Your task to perform on an android device: turn on priority inbox in the gmail app Image 0: 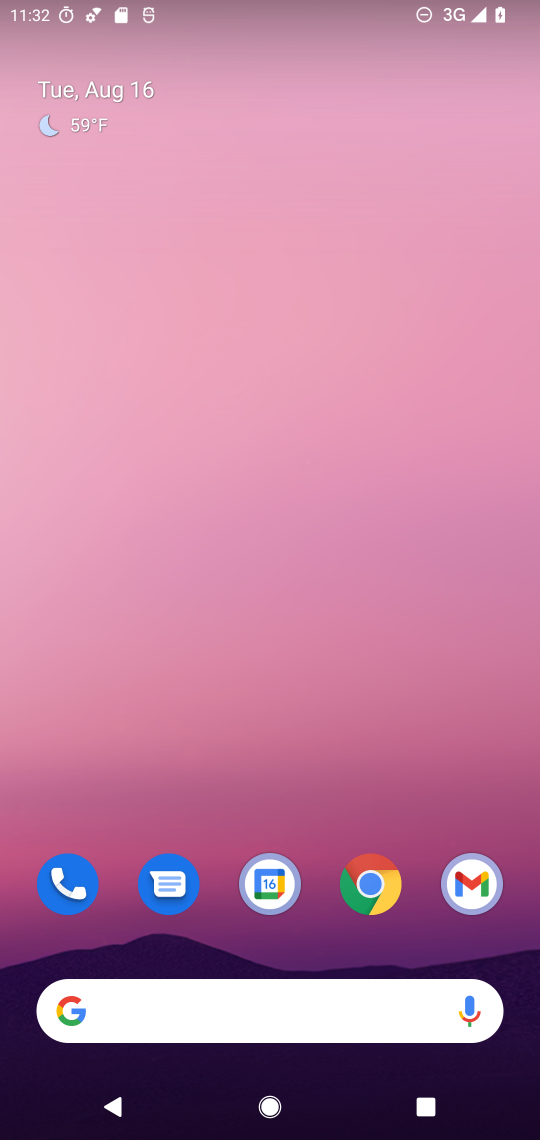
Step 0: drag from (225, 761) to (83, 23)
Your task to perform on an android device: turn on priority inbox in the gmail app Image 1: 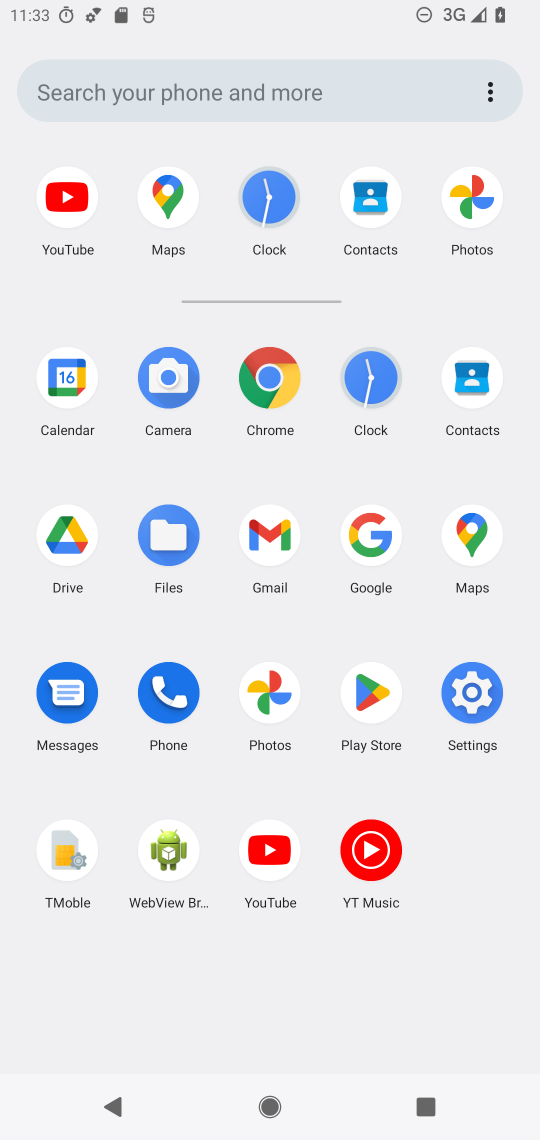
Step 1: click (258, 539)
Your task to perform on an android device: turn on priority inbox in the gmail app Image 2: 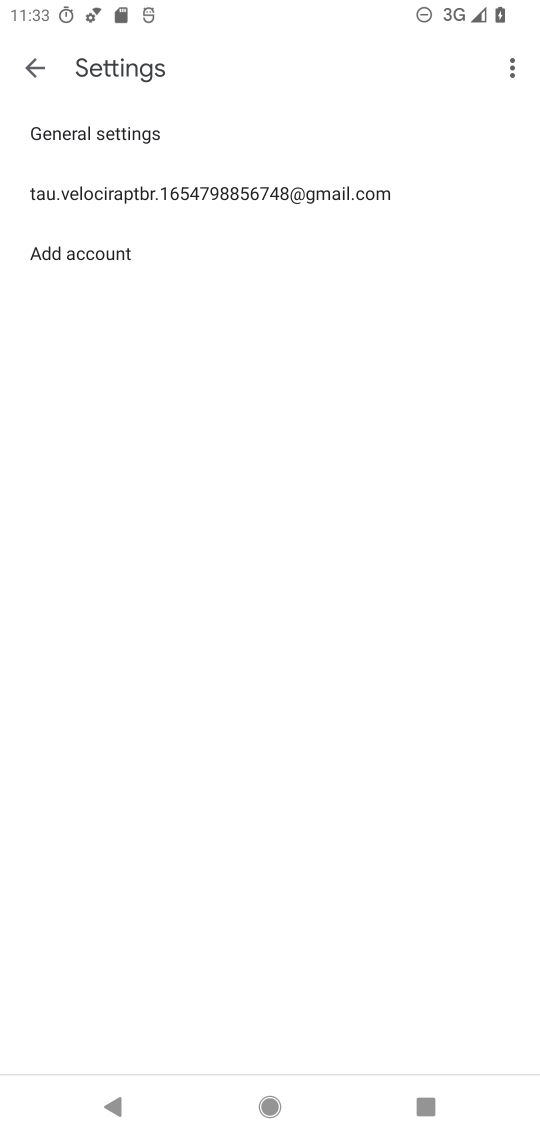
Step 2: click (79, 206)
Your task to perform on an android device: turn on priority inbox in the gmail app Image 3: 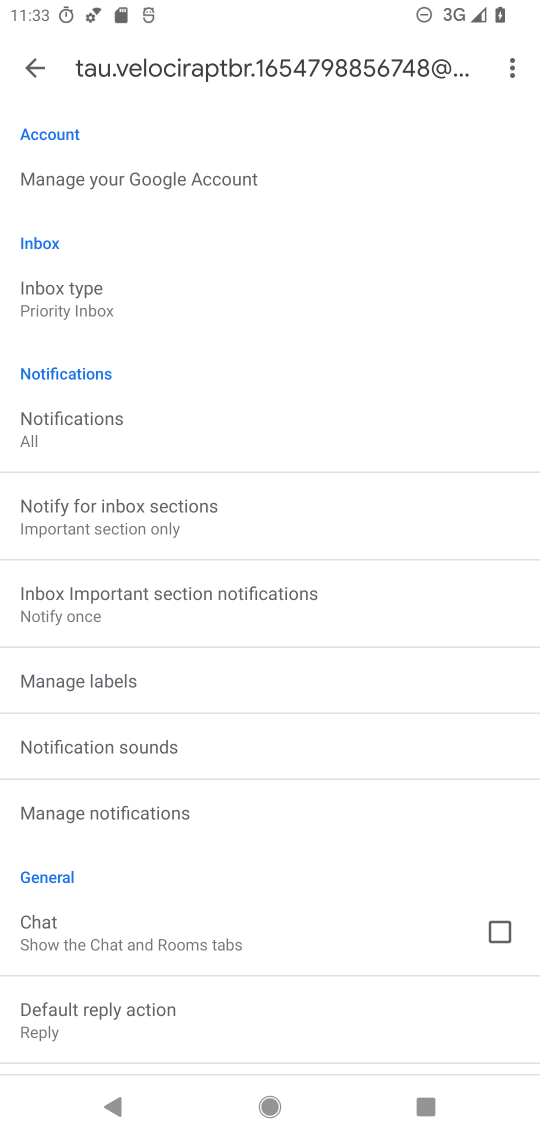
Step 3: click (80, 290)
Your task to perform on an android device: turn on priority inbox in the gmail app Image 4: 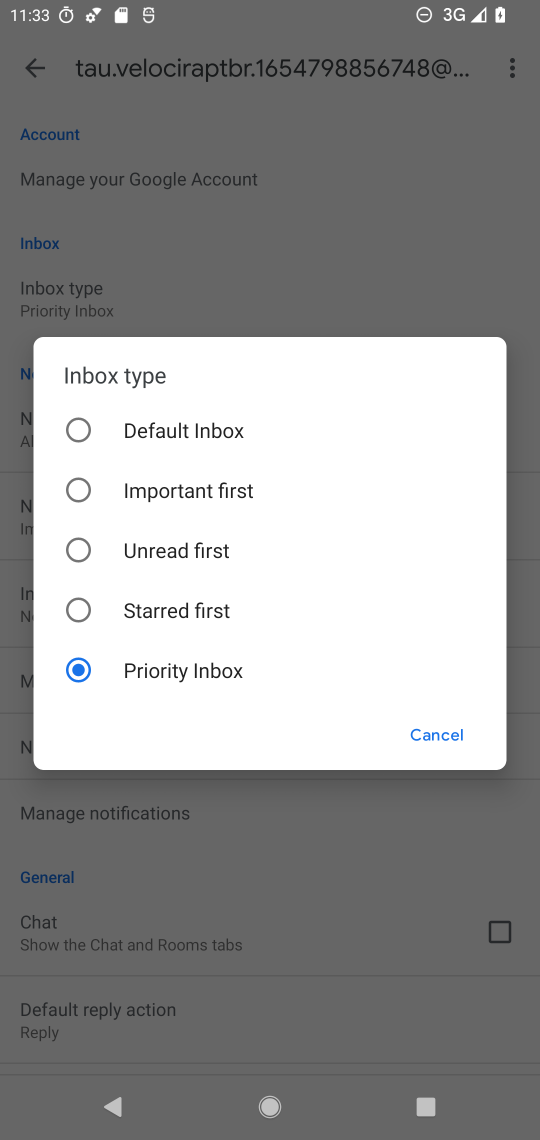
Step 4: task complete